Your task to perform on an android device: turn on improve location accuracy Image 0: 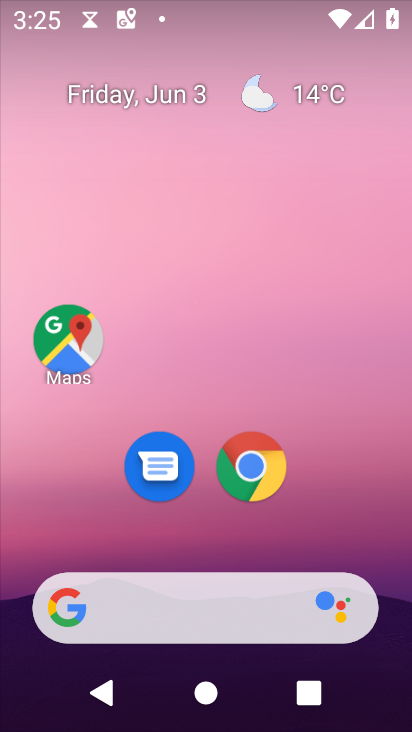
Step 0: drag from (370, 510) to (306, 168)
Your task to perform on an android device: turn on improve location accuracy Image 1: 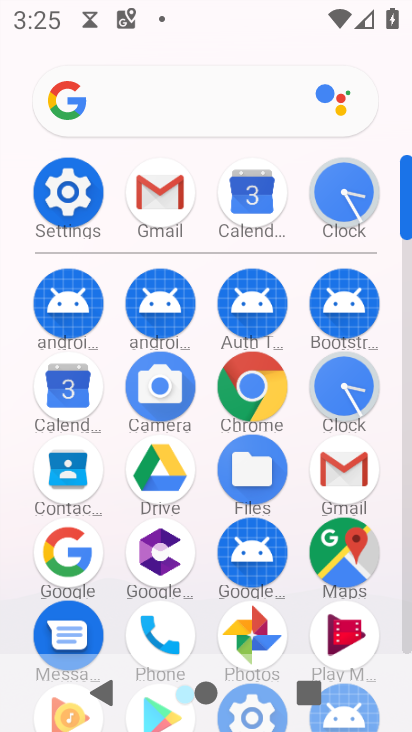
Step 1: click (23, 211)
Your task to perform on an android device: turn on improve location accuracy Image 2: 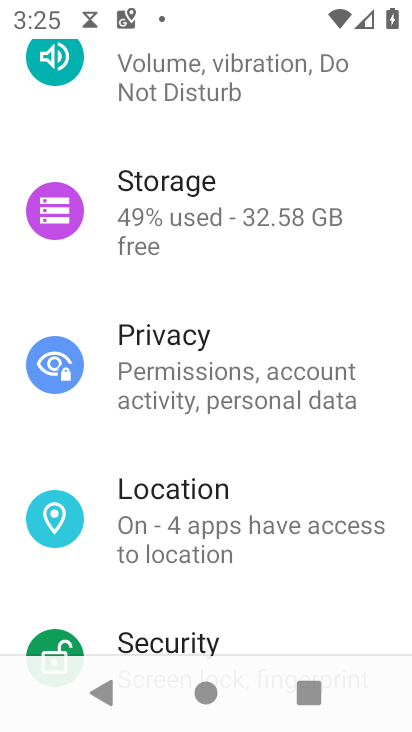
Step 2: click (199, 294)
Your task to perform on an android device: turn on improve location accuracy Image 3: 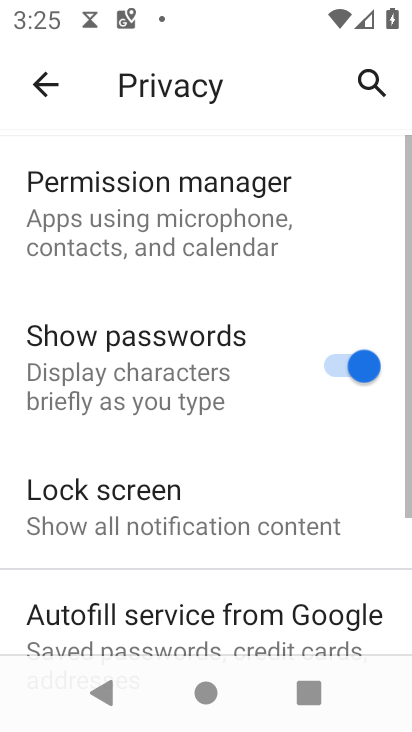
Step 3: press back button
Your task to perform on an android device: turn on improve location accuracy Image 4: 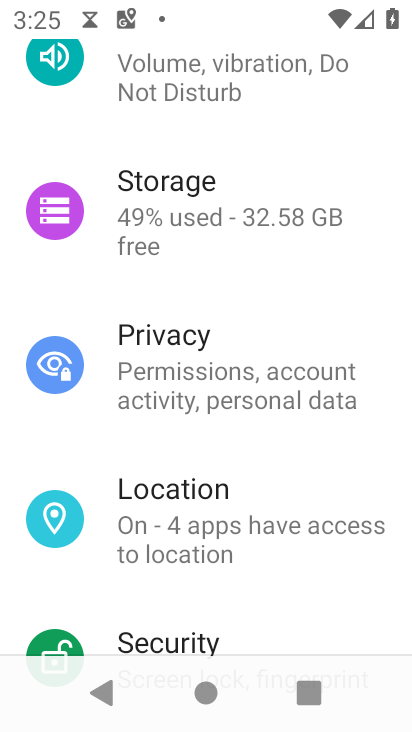
Step 4: click (240, 515)
Your task to perform on an android device: turn on improve location accuracy Image 5: 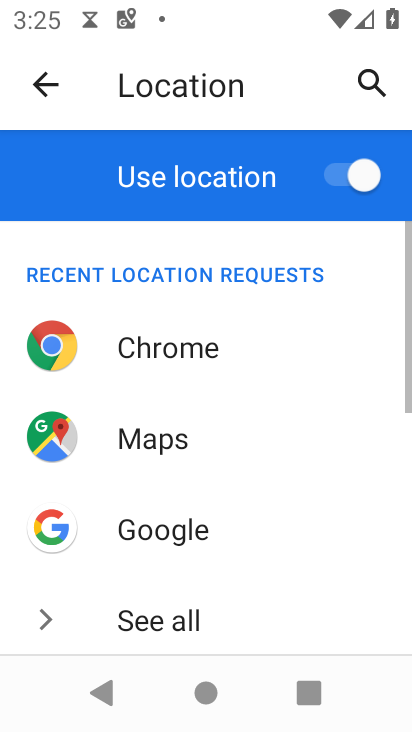
Step 5: drag from (256, 583) to (234, 159)
Your task to perform on an android device: turn on improve location accuracy Image 6: 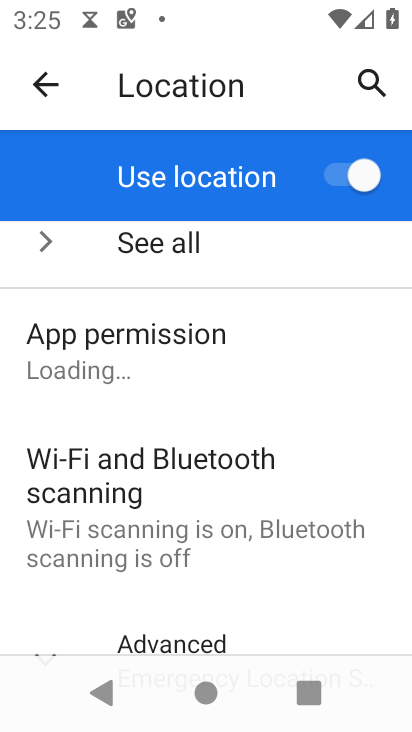
Step 6: drag from (225, 511) to (192, 183)
Your task to perform on an android device: turn on improve location accuracy Image 7: 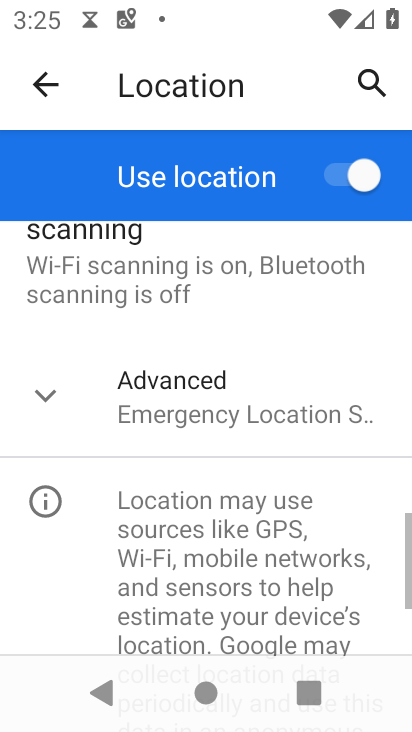
Step 7: click (196, 376)
Your task to perform on an android device: turn on improve location accuracy Image 8: 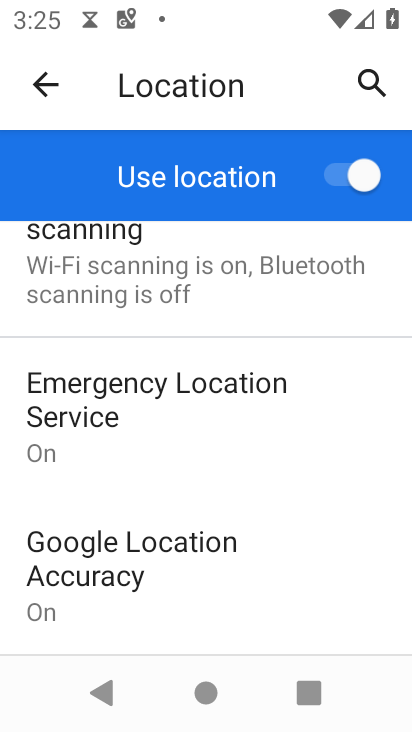
Step 8: drag from (233, 510) to (220, 193)
Your task to perform on an android device: turn on improve location accuracy Image 9: 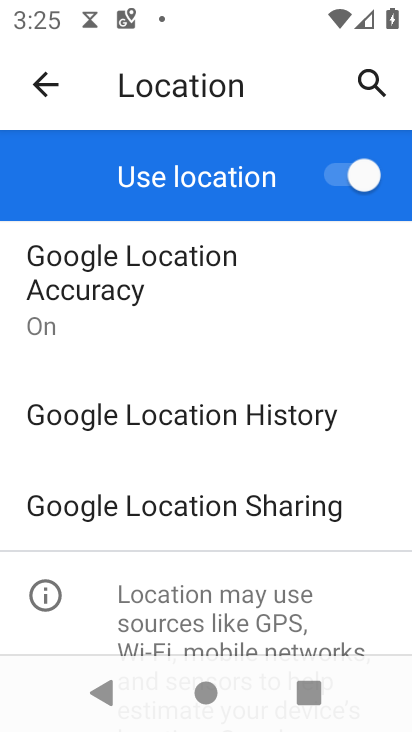
Step 9: click (199, 273)
Your task to perform on an android device: turn on improve location accuracy Image 10: 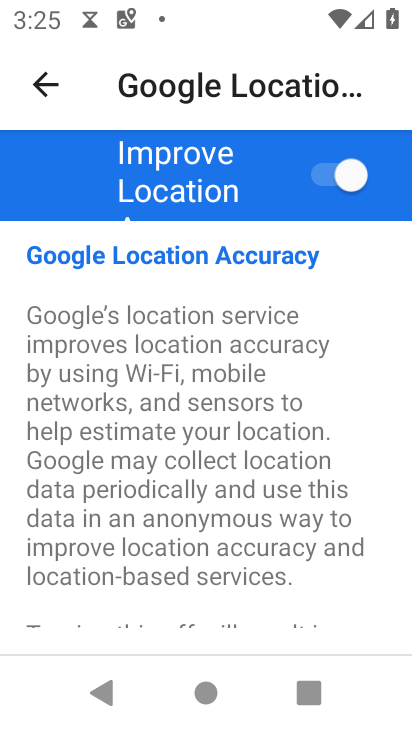
Step 10: click (56, 89)
Your task to perform on an android device: turn on improve location accuracy Image 11: 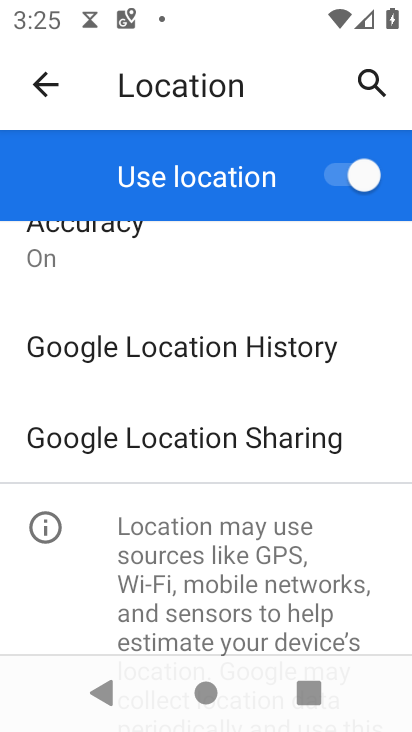
Step 11: drag from (192, 253) to (239, 545)
Your task to perform on an android device: turn on improve location accuracy Image 12: 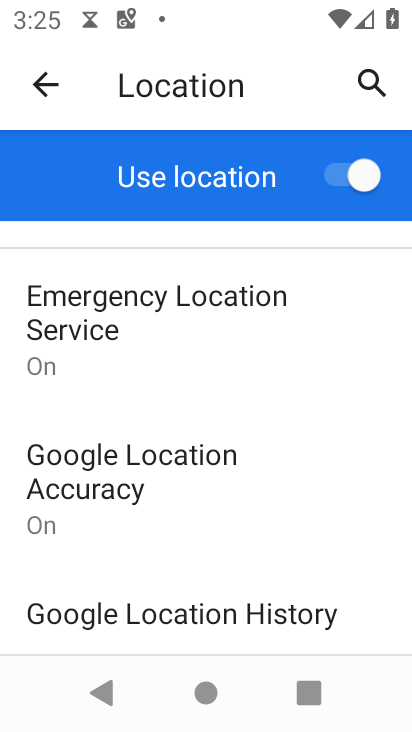
Step 12: click (219, 485)
Your task to perform on an android device: turn on improve location accuracy Image 13: 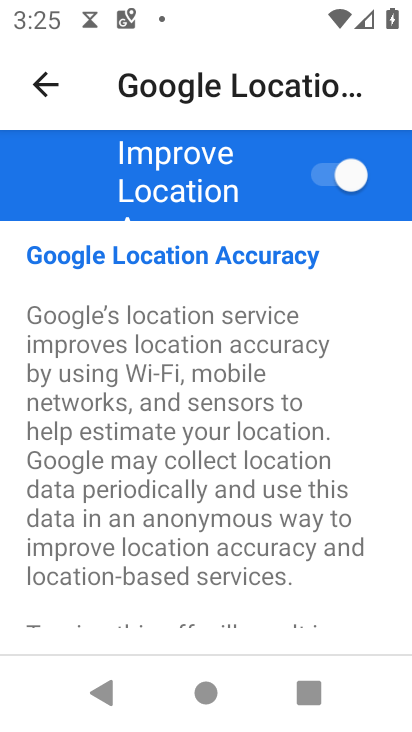
Step 13: click (53, 61)
Your task to perform on an android device: turn on improve location accuracy Image 14: 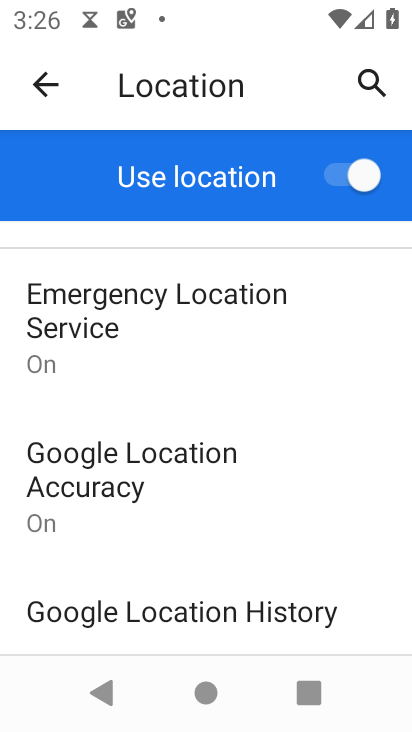
Step 14: click (190, 490)
Your task to perform on an android device: turn on improve location accuracy Image 15: 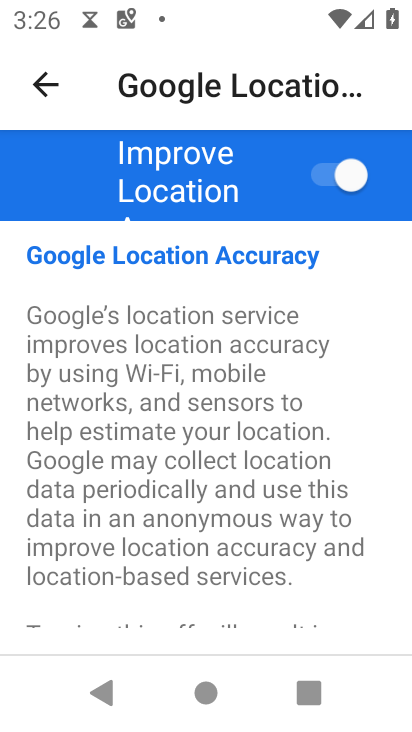
Step 15: task complete